Your task to perform on an android device: check android version Image 0: 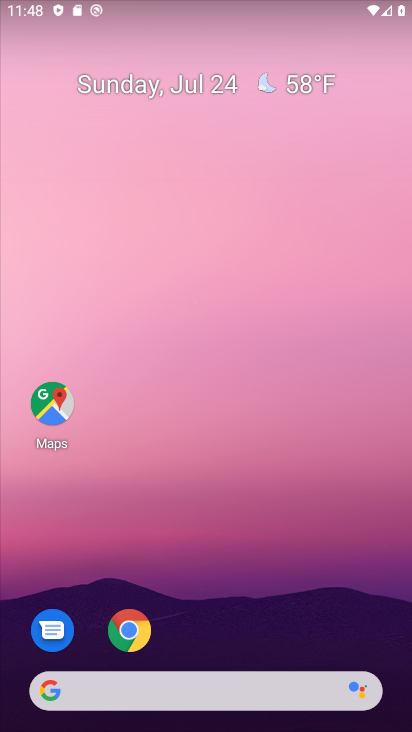
Step 0: drag from (261, 640) to (251, 1)
Your task to perform on an android device: check android version Image 1: 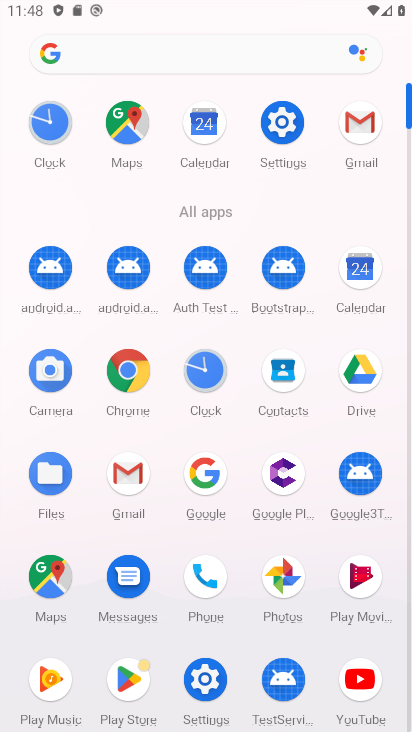
Step 1: click (286, 115)
Your task to perform on an android device: check android version Image 2: 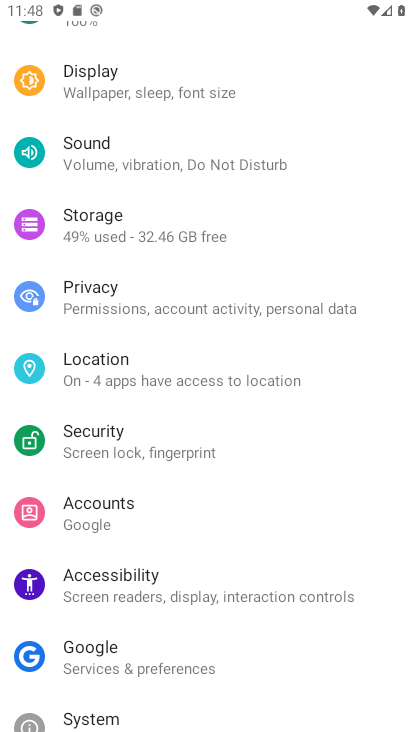
Step 2: drag from (186, 699) to (131, 228)
Your task to perform on an android device: check android version Image 3: 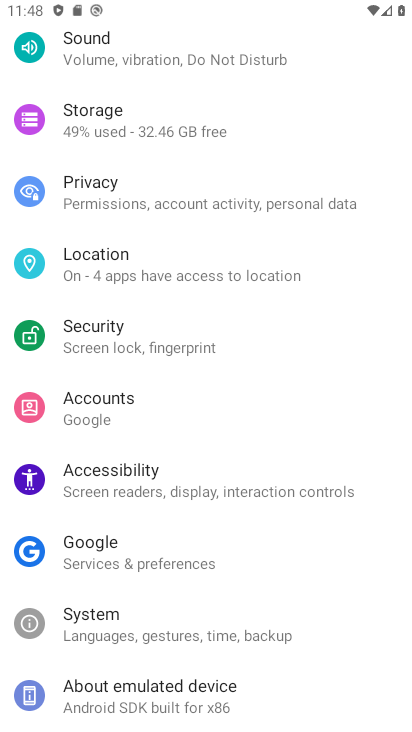
Step 3: click (156, 692)
Your task to perform on an android device: check android version Image 4: 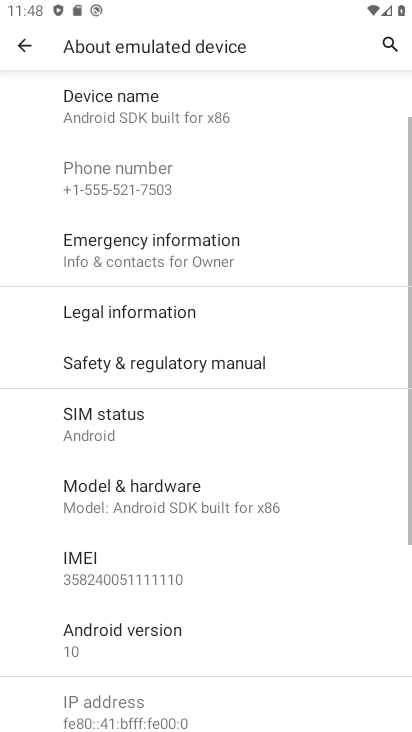
Step 4: click (164, 647)
Your task to perform on an android device: check android version Image 5: 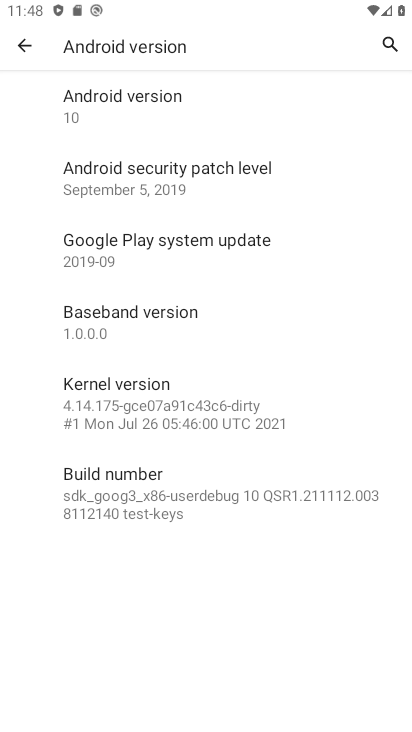
Step 5: task complete